Your task to perform on an android device: Open notification settings Image 0: 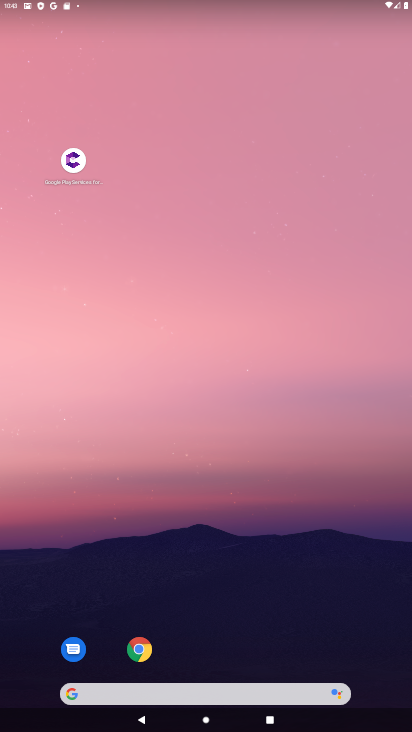
Step 0: drag from (193, 691) to (316, 109)
Your task to perform on an android device: Open notification settings Image 1: 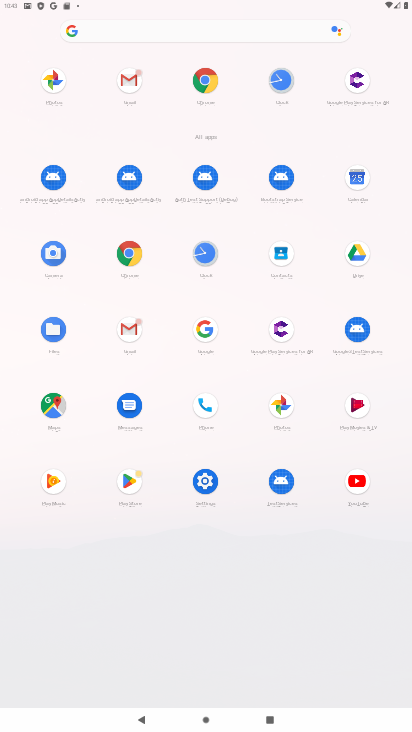
Step 1: click (206, 484)
Your task to perform on an android device: Open notification settings Image 2: 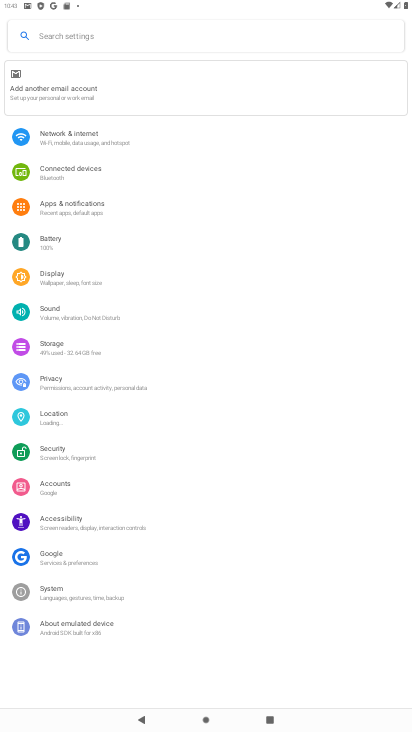
Step 2: click (109, 198)
Your task to perform on an android device: Open notification settings Image 3: 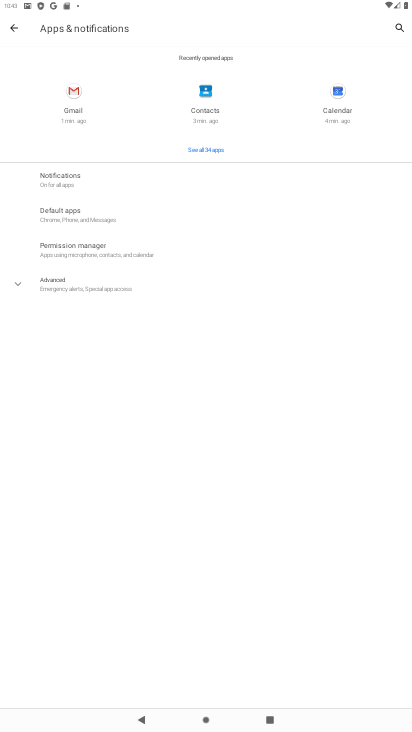
Step 3: click (98, 170)
Your task to perform on an android device: Open notification settings Image 4: 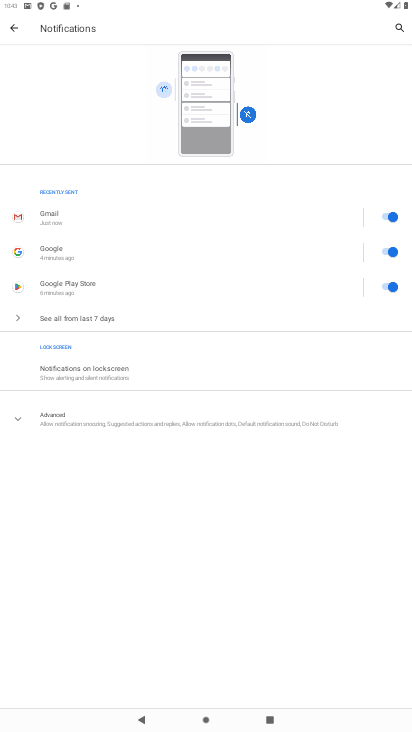
Step 4: task complete